Your task to perform on an android device: change notification settings in the gmail app Image 0: 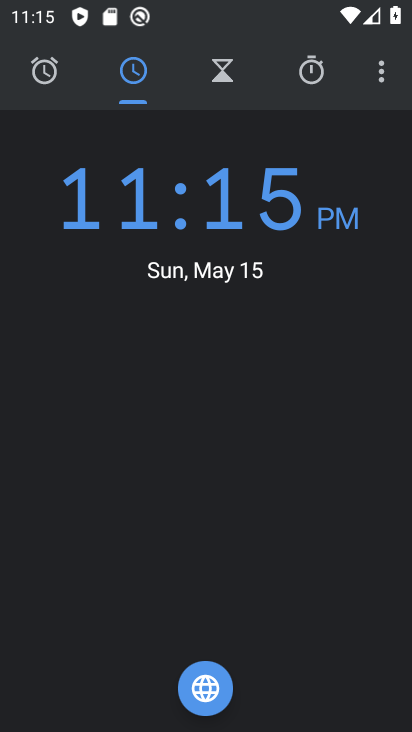
Step 0: press home button
Your task to perform on an android device: change notification settings in the gmail app Image 1: 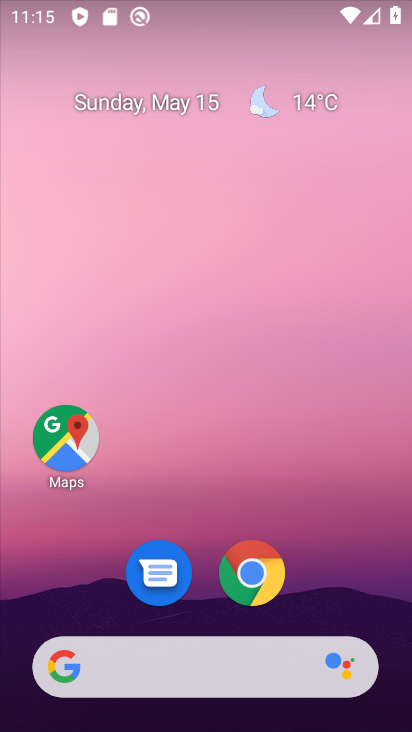
Step 1: drag from (208, 486) to (213, 77)
Your task to perform on an android device: change notification settings in the gmail app Image 2: 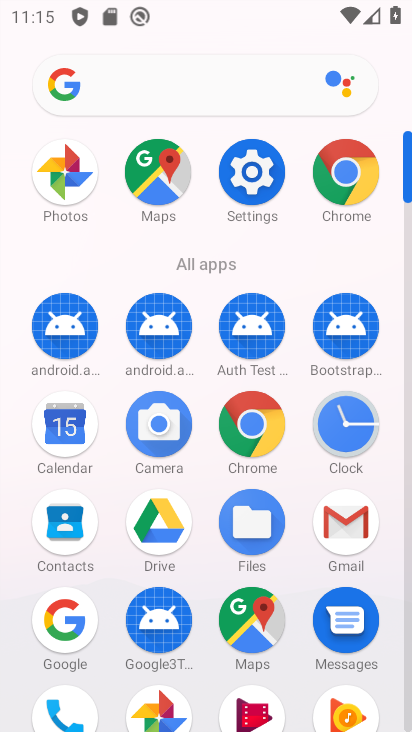
Step 2: click (345, 517)
Your task to perform on an android device: change notification settings in the gmail app Image 3: 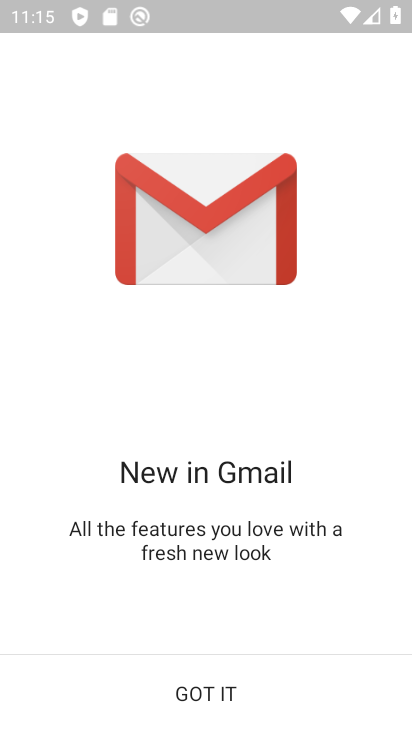
Step 3: click (345, 517)
Your task to perform on an android device: change notification settings in the gmail app Image 4: 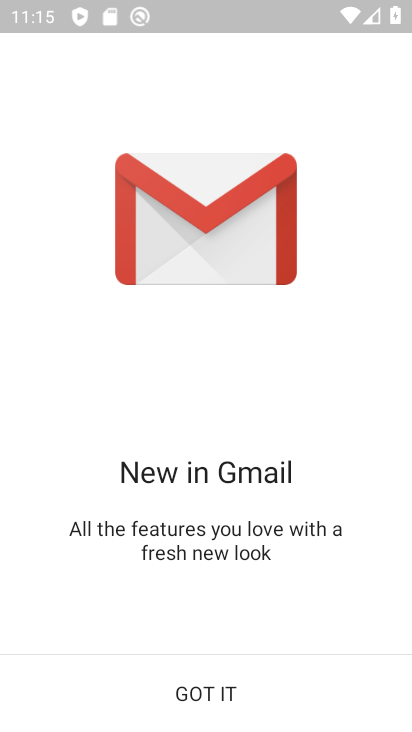
Step 4: click (204, 694)
Your task to perform on an android device: change notification settings in the gmail app Image 5: 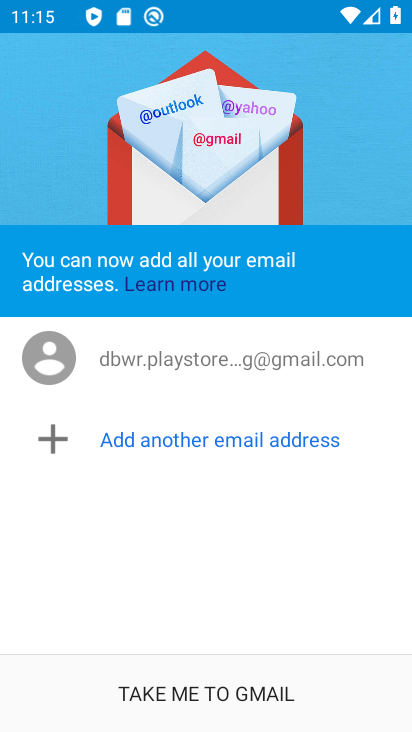
Step 5: click (219, 685)
Your task to perform on an android device: change notification settings in the gmail app Image 6: 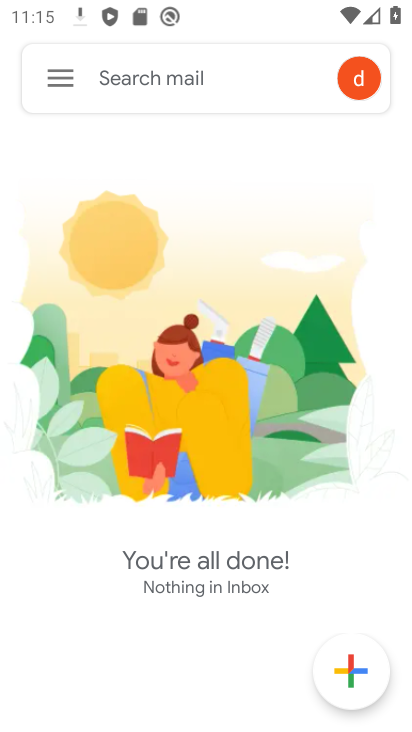
Step 6: click (46, 80)
Your task to perform on an android device: change notification settings in the gmail app Image 7: 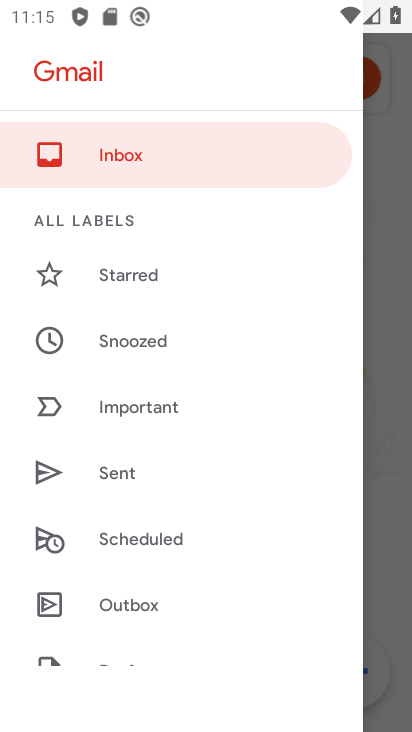
Step 7: drag from (298, 618) to (276, 52)
Your task to perform on an android device: change notification settings in the gmail app Image 8: 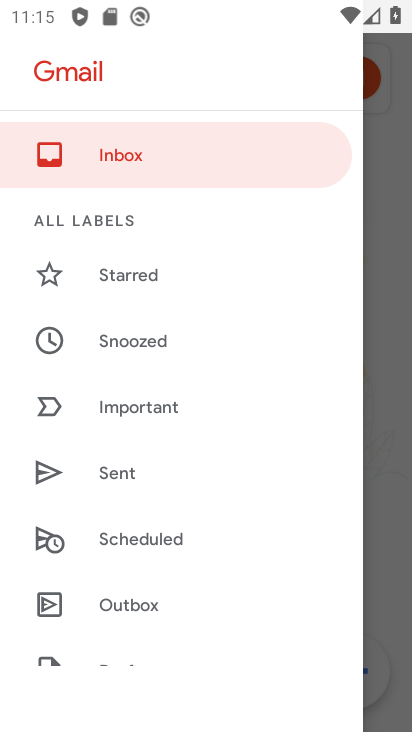
Step 8: drag from (204, 491) to (188, 51)
Your task to perform on an android device: change notification settings in the gmail app Image 9: 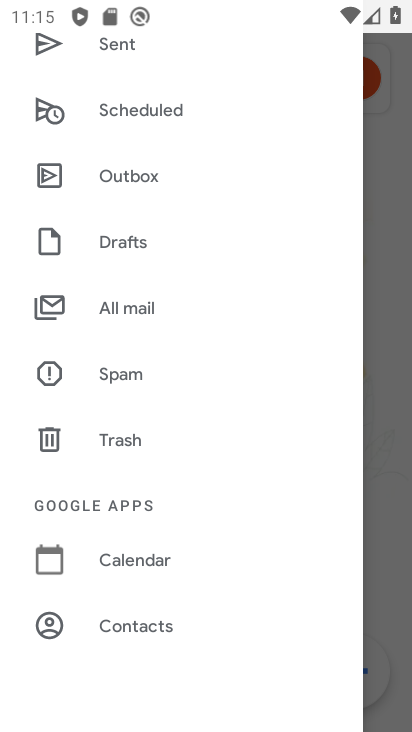
Step 9: drag from (209, 512) to (174, 175)
Your task to perform on an android device: change notification settings in the gmail app Image 10: 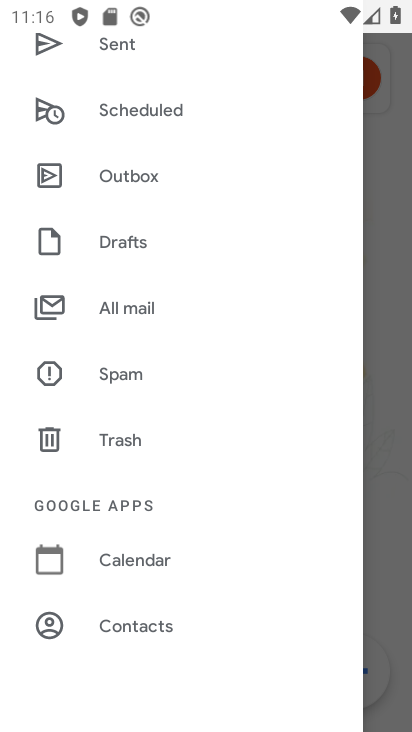
Step 10: drag from (220, 555) to (220, 126)
Your task to perform on an android device: change notification settings in the gmail app Image 11: 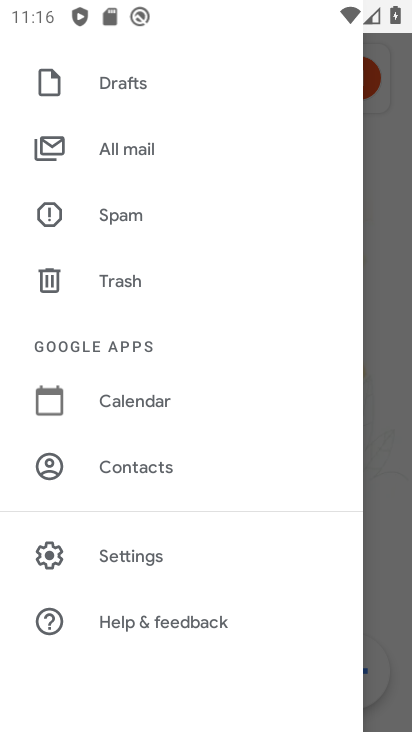
Step 11: click (144, 549)
Your task to perform on an android device: change notification settings in the gmail app Image 12: 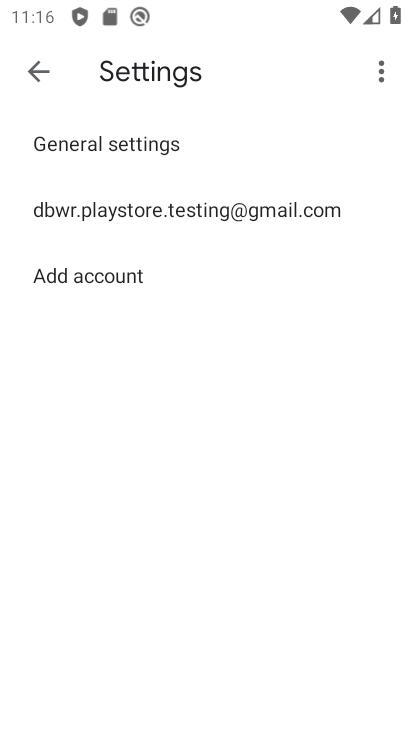
Step 12: click (93, 135)
Your task to perform on an android device: change notification settings in the gmail app Image 13: 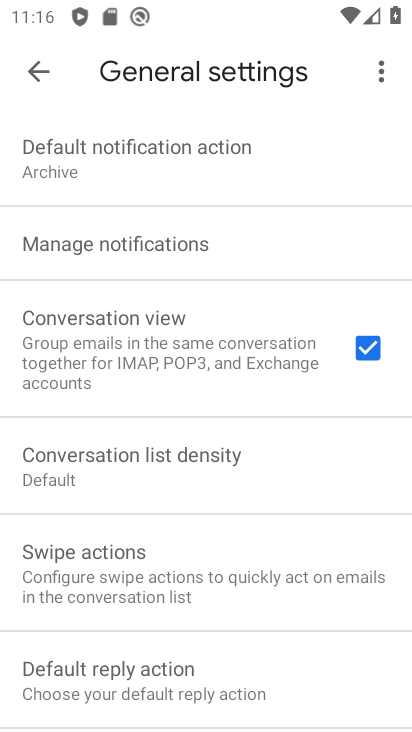
Step 13: click (131, 232)
Your task to perform on an android device: change notification settings in the gmail app Image 14: 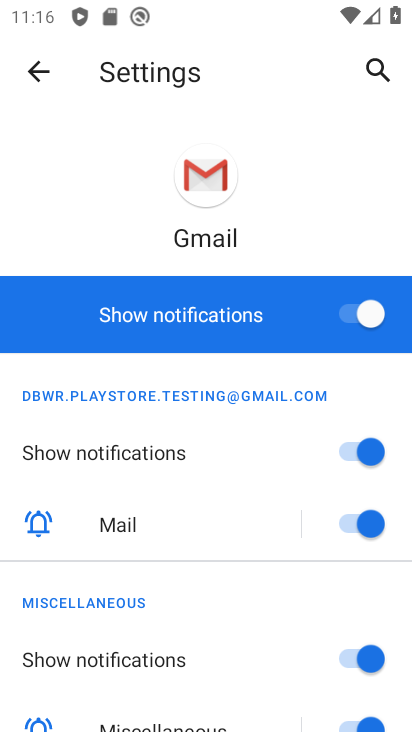
Step 14: click (375, 311)
Your task to perform on an android device: change notification settings in the gmail app Image 15: 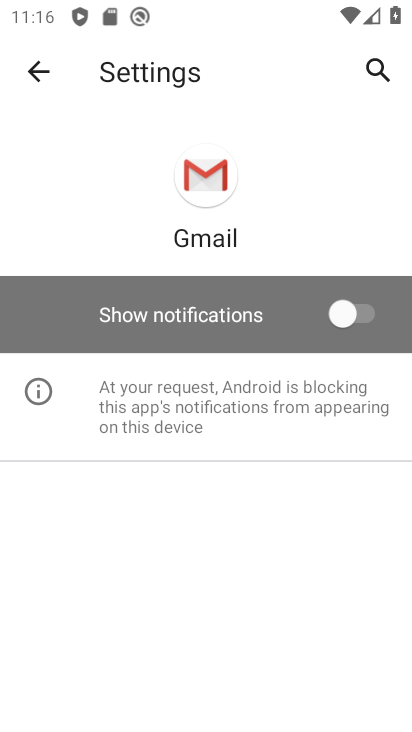
Step 15: task complete